Your task to perform on an android device: find photos in the google photos app Image 0: 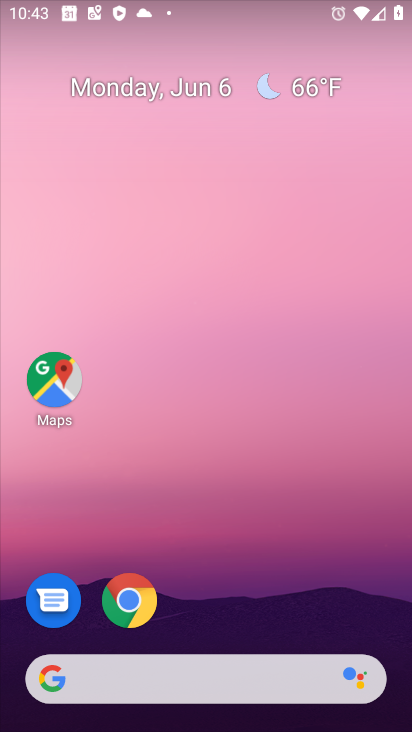
Step 0: drag from (132, 726) to (310, 118)
Your task to perform on an android device: find photos in the google photos app Image 1: 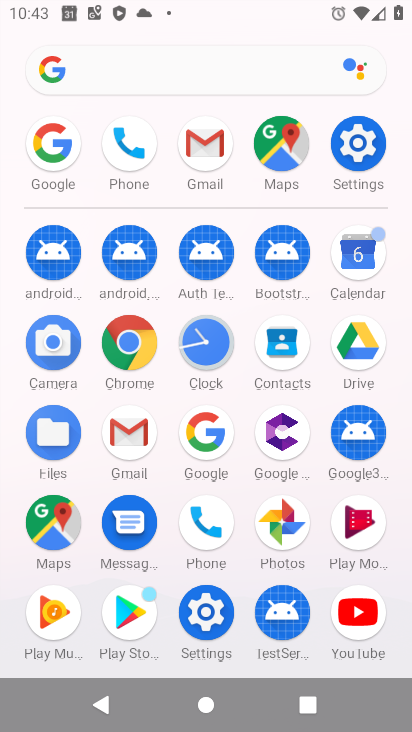
Step 1: click (284, 535)
Your task to perform on an android device: find photos in the google photos app Image 2: 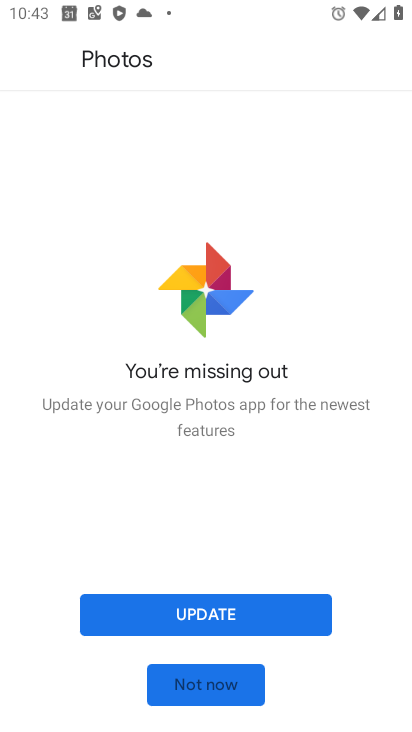
Step 2: click (186, 681)
Your task to perform on an android device: find photos in the google photos app Image 3: 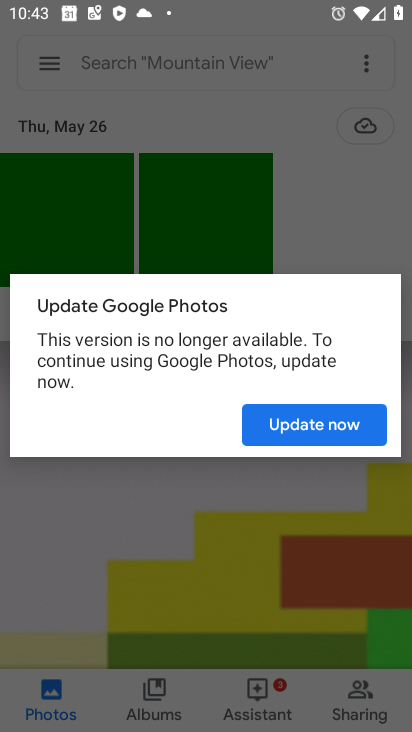
Step 3: task complete